Your task to perform on an android device: What is the recent news? Image 0: 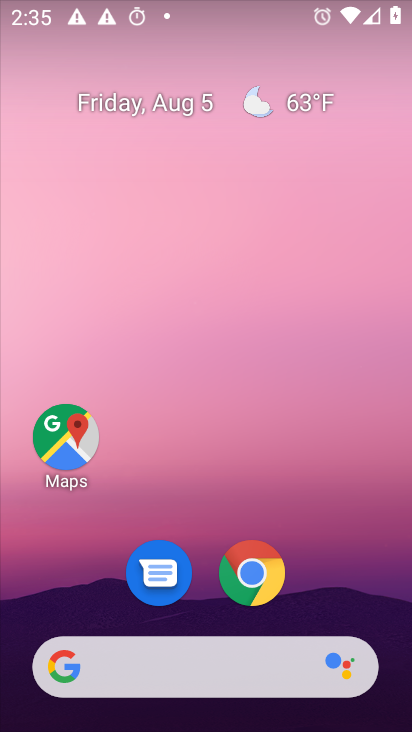
Step 0: press home button
Your task to perform on an android device: What is the recent news? Image 1: 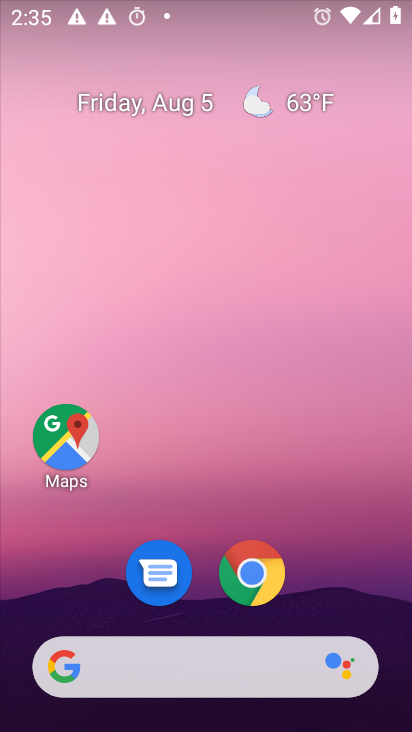
Step 1: task complete